Your task to perform on an android device: see sites visited before in the chrome app Image 0: 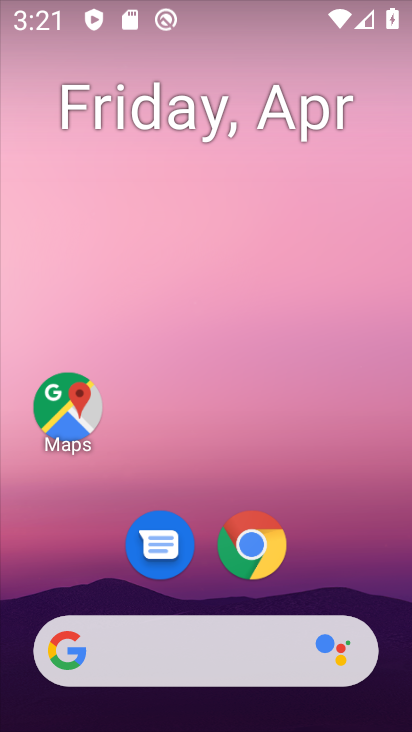
Step 0: click (241, 539)
Your task to perform on an android device: see sites visited before in the chrome app Image 1: 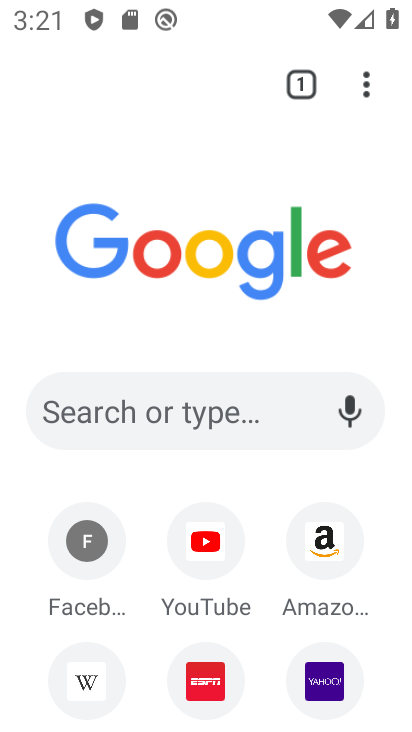
Step 1: click (367, 93)
Your task to perform on an android device: see sites visited before in the chrome app Image 2: 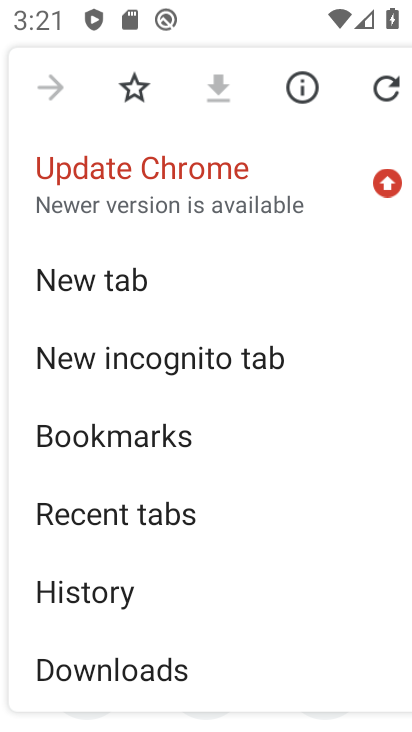
Step 2: click (85, 522)
Your task to perform on an android device: see sites visited before in the chrome app Image 3: 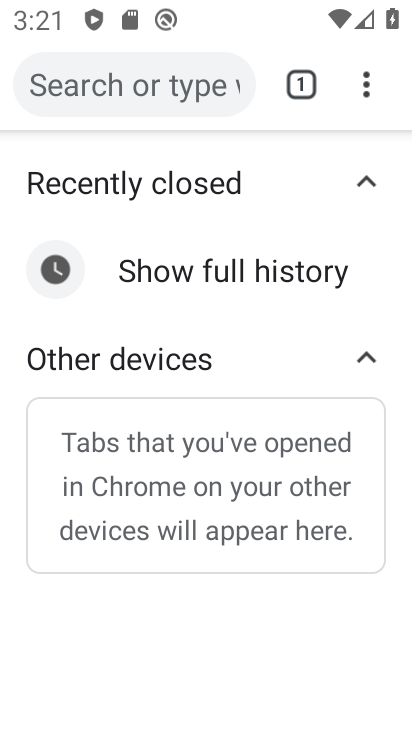
Step 3: task complete